Your task to perform on an android device: uninstall "Google Play services" Image 0: 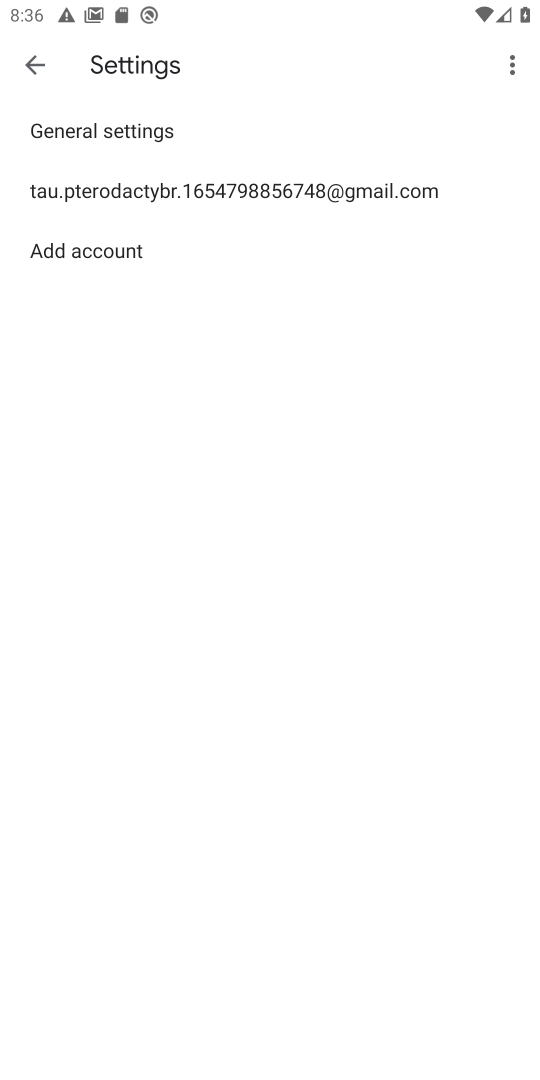
Step 0: press home button
Your task to perform on an android device: uninstall "Google Play services" Image 1: 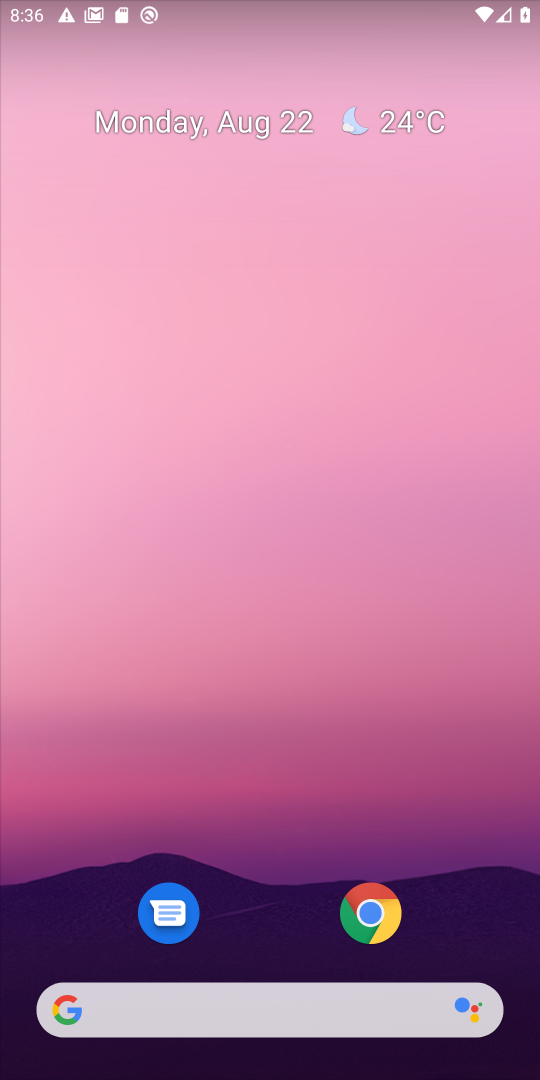
Step 1: drag from (272, 1011) to (175, 71)
Your task to perform on an android device: uninstall "Google Play services" Image 2: 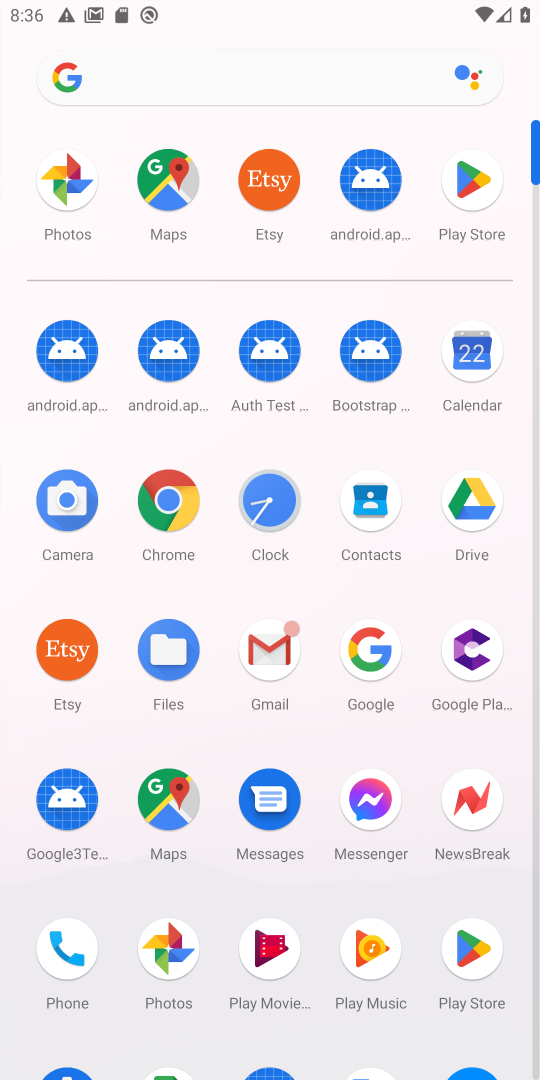
Step 2: click (476, 177)
Your task to perform on an android device: uninstall "Google Play services" Image 3: 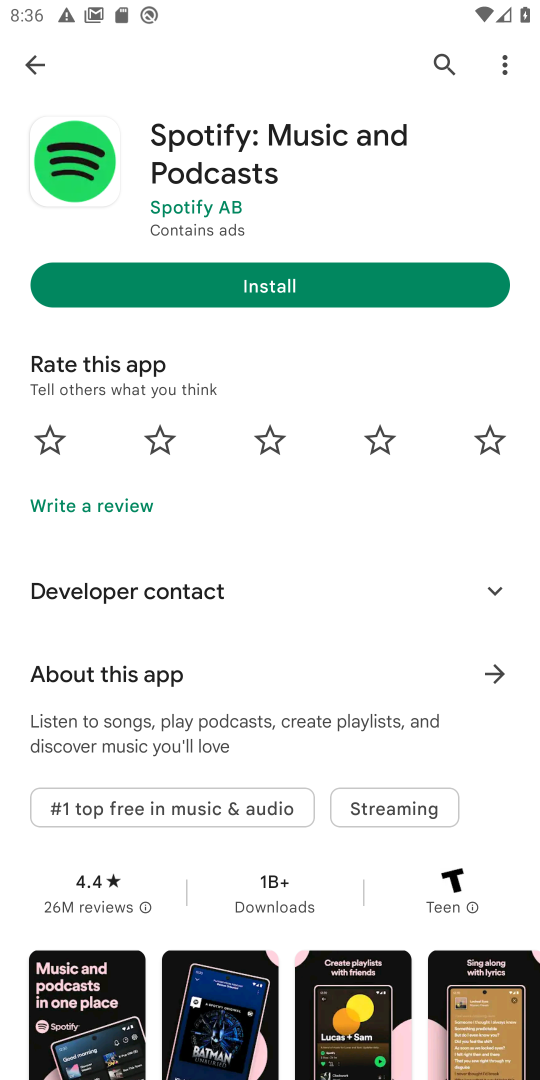
Step 3: click (441, 70)
Your task to perform on an android device: uninstall "Google Play services" Image 4: 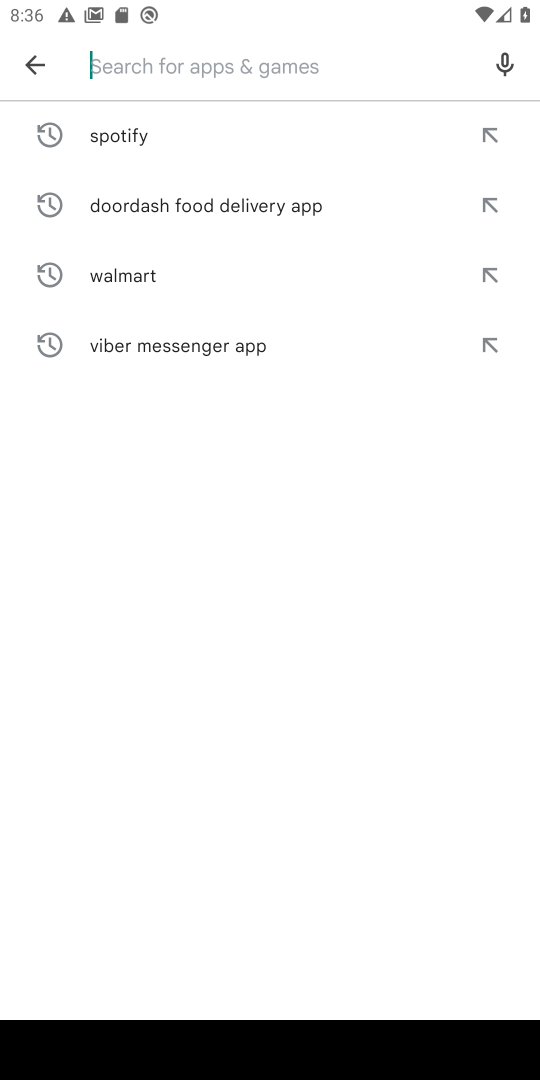
Step 4: type "google play service"
Your task to perform on an android device: uninstall "Google Play services" Image 5: 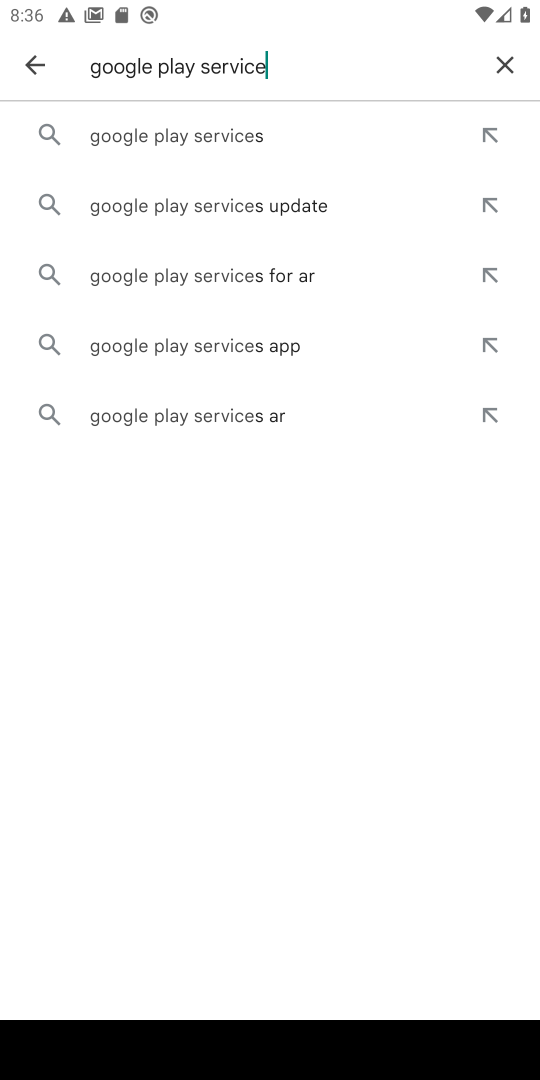
Step 5: click (137, 123)
Your task to perform on an android device: uninstall "Google Play services" Image 6: 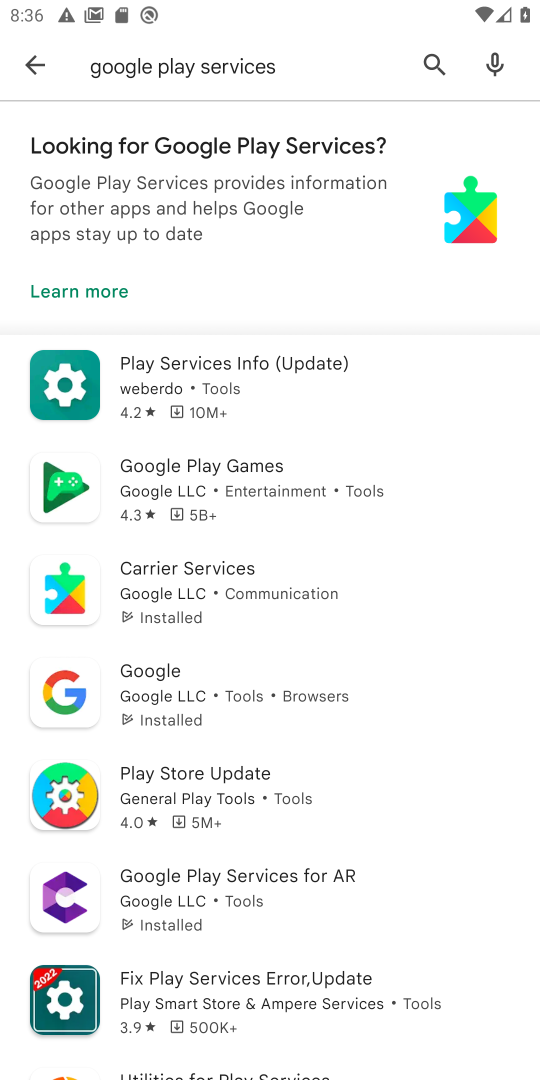
Step 6: click (349, 176)
Your task to perform on an android device: uninstall "Google Play services" Image 7: 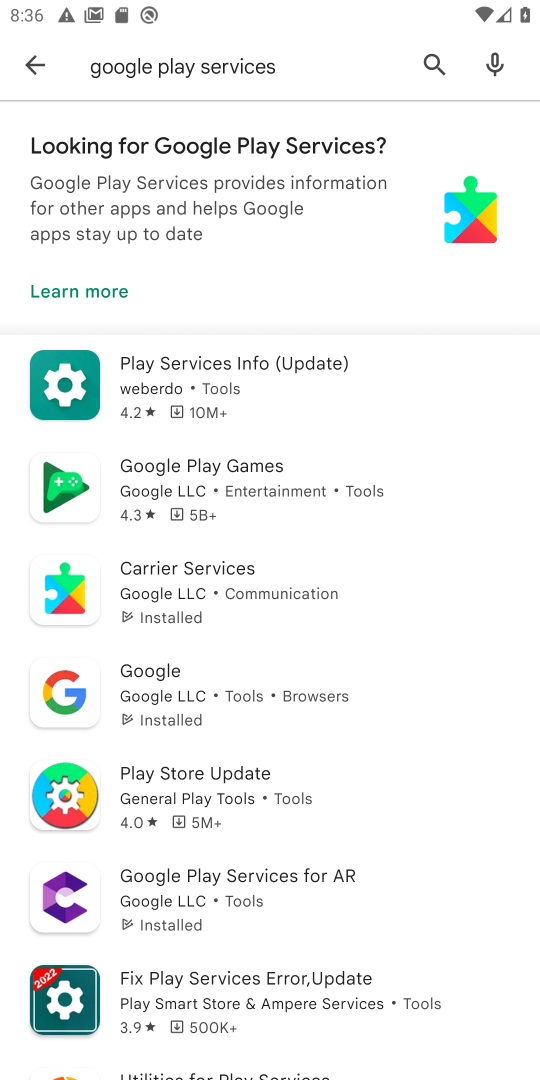
Step 7: task complete